Your task to perform on an android device: check out phone information Image 0: 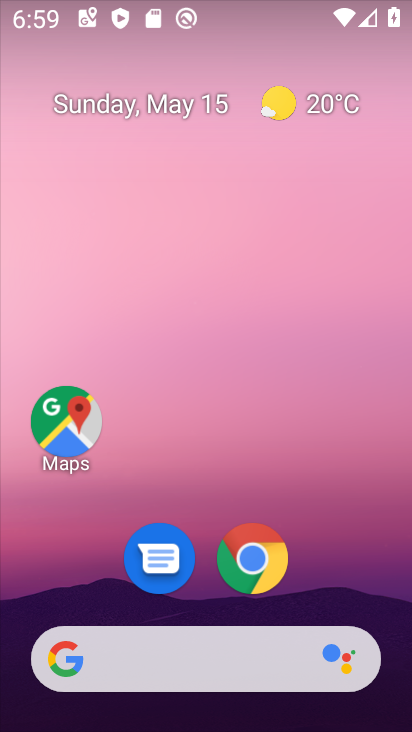
Step 0: click (200, 56)
Your task to perform on an android device: check out phone information Image 1: 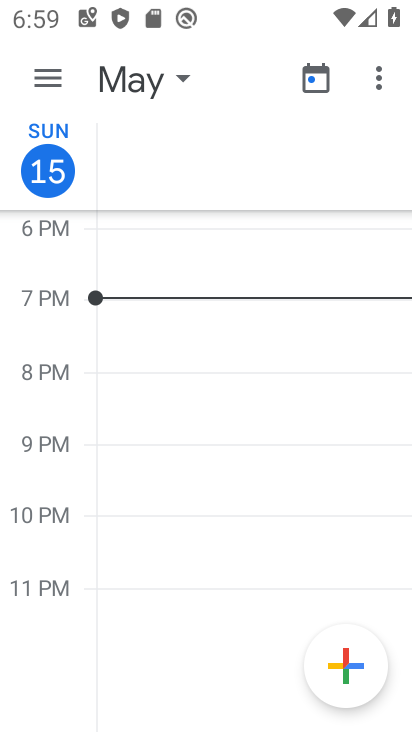
Step 1: press home button
Your task to perform on an android device: check out phone information Image 2: 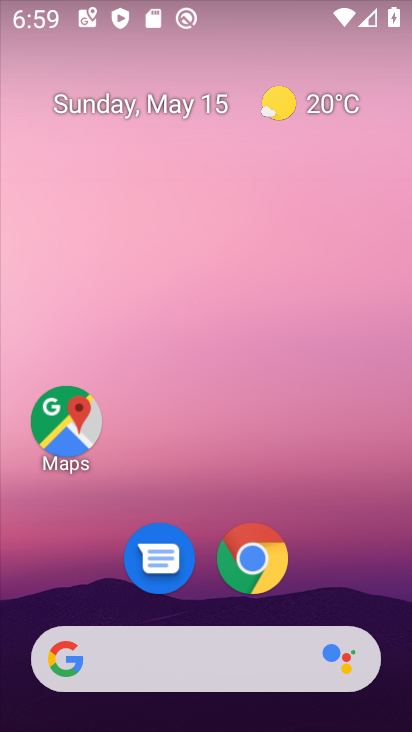
Step 2: drag from (332, 569) to (172, 7)
Your task to perform on an android device: check out phone information Image 3: 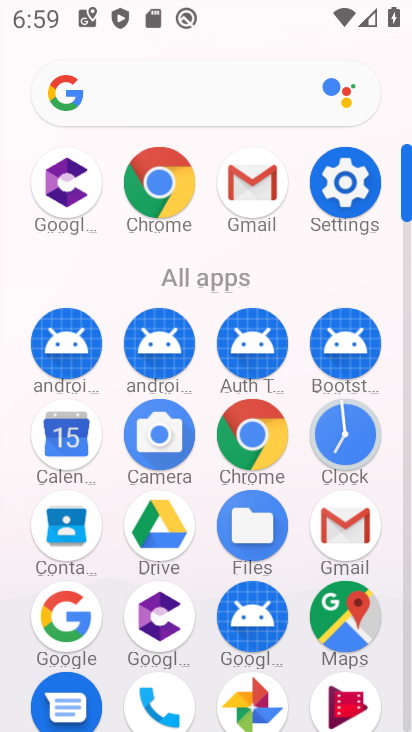
Step 3: click (339, 183)
Your task to perform on an android device: check out phone information Image 4: 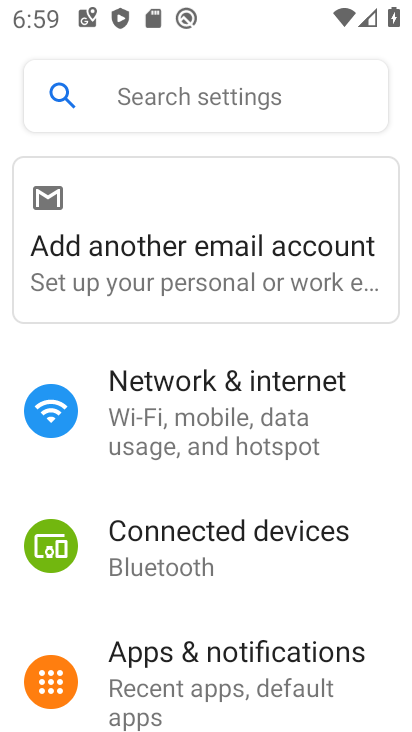
Step 4: drag from (229, 608) to (203, 339)
Your task to perform on an android device: check out phone information Image 5: 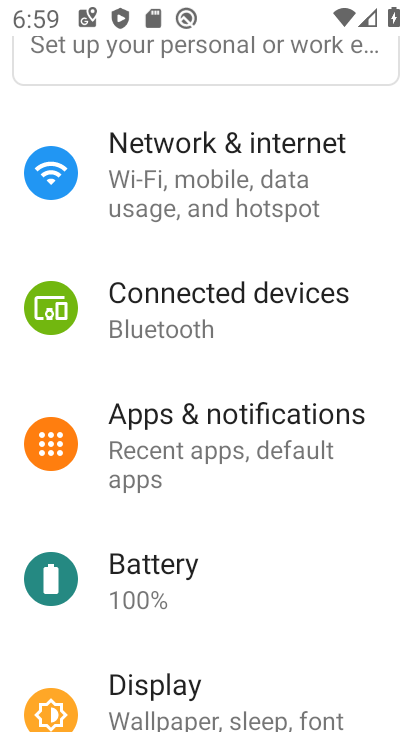
Step 5: drag from (223, 625) to (166, 372)
Your task to perform on an android device: check out phone information Image 6: 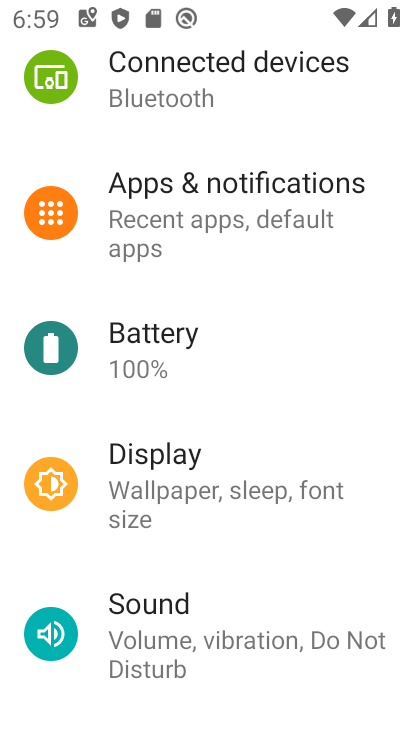
Step 6: drag from (214, 552) to (155, 179)
Your task to perform on an android device: check out phone information Image 7: 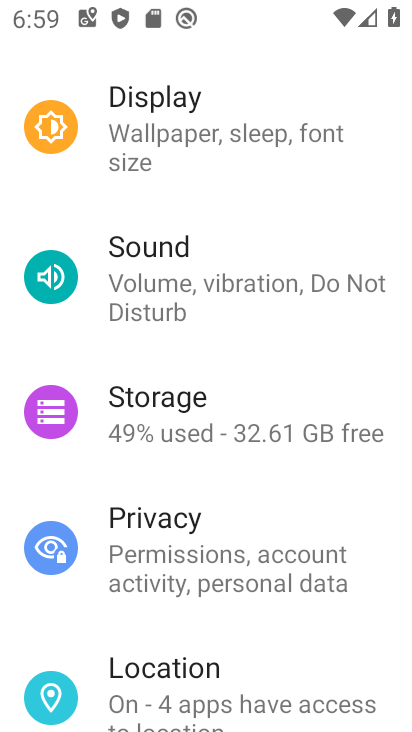
Step 7: drag from (238, 626) to (150, 180)
Your task to perform on an android device: check out phone information Image 8: 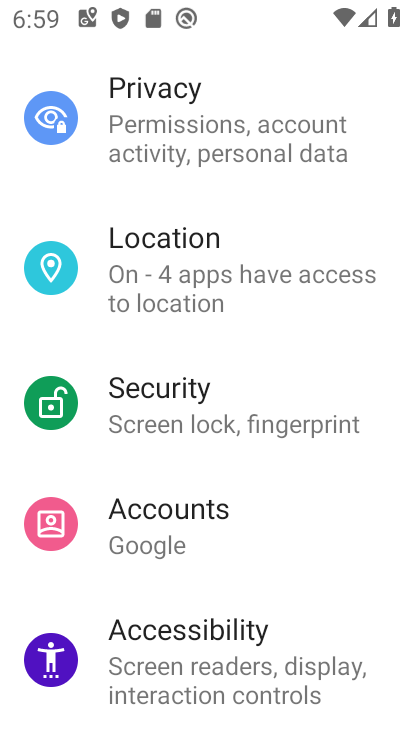
Step 8: drag from (235, 573) to (148, 207)
Your task to perform on an android device: check out phone information Image 9: 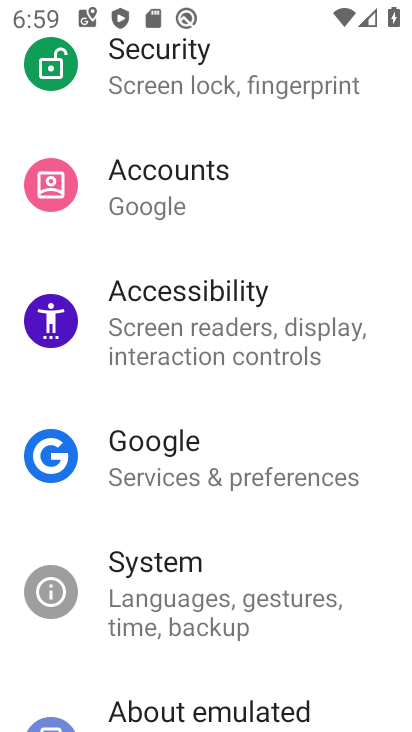
Step 9: drag from (204, 665) to (192, 362)
Your task to perform on an android device: check out phone information Image 10: 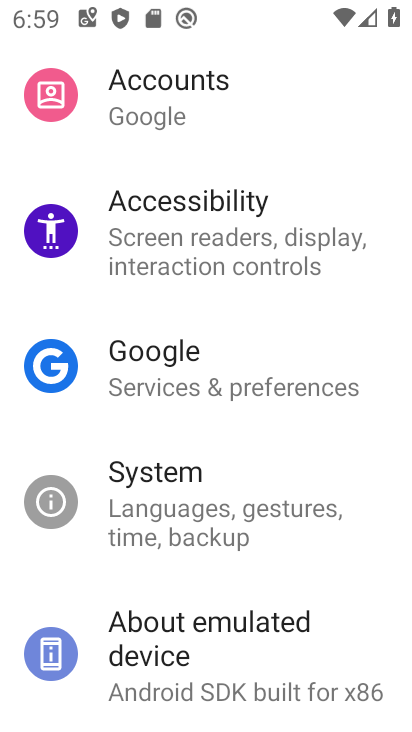
Step 10: click (152, 635)
Your task to perform on an android device: check out phone information Image 11: 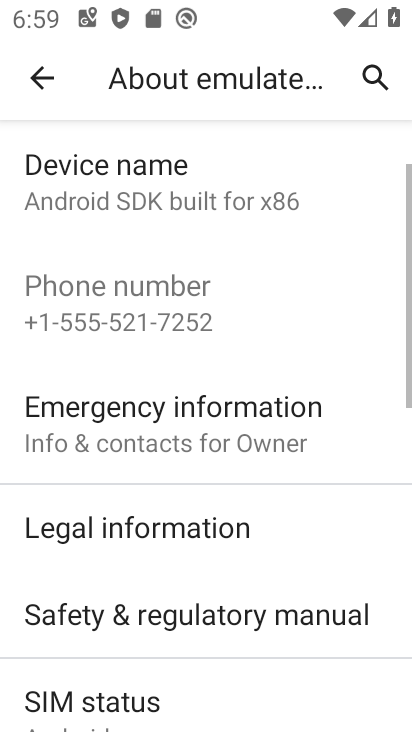
Step 11: task complete